Your task to perform on an android device: see creations saved in the google photos Image 0: 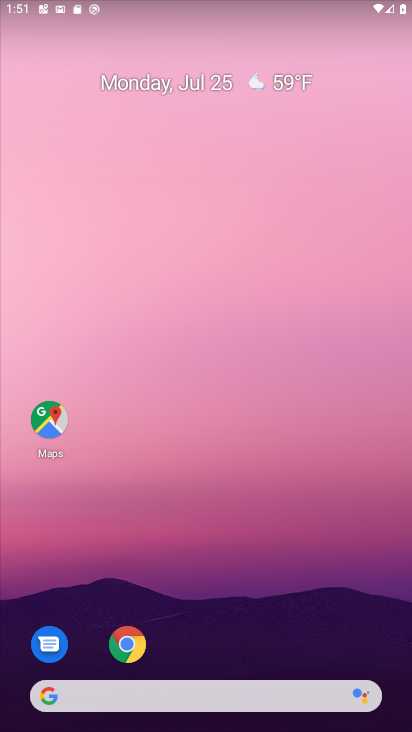
Step 0: drag from (396, 680) to (354, 144)
Your task to perform on an android device: see creations saved in the google photos Image 1: 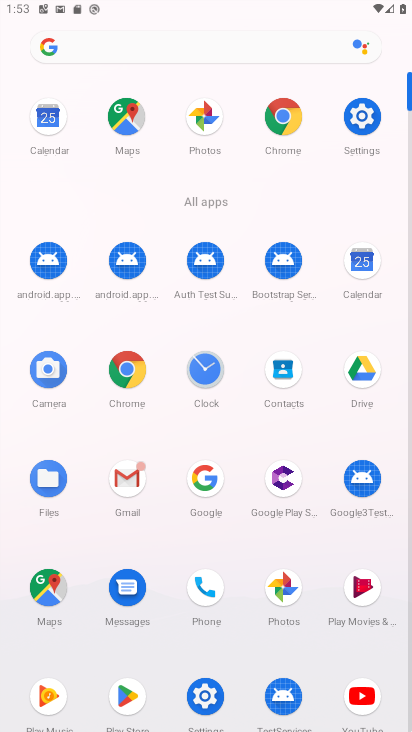
Step 1: click (273, 592)
Your task to perform on an android device: see creations saved in the google photos Image 2: 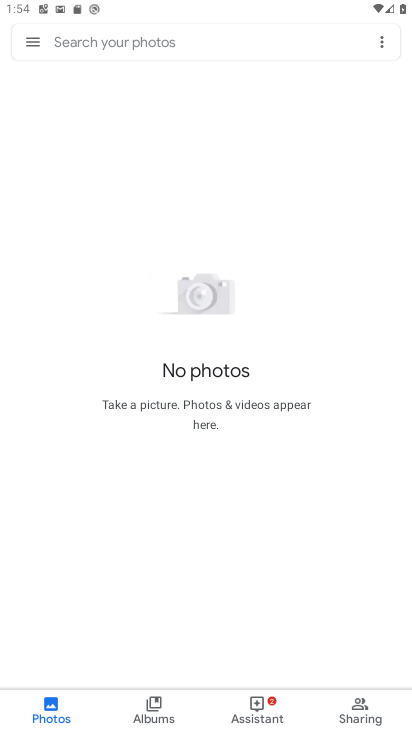
Step 2: task complete